Your task to perform on an android device: Open my contact list Image 0: 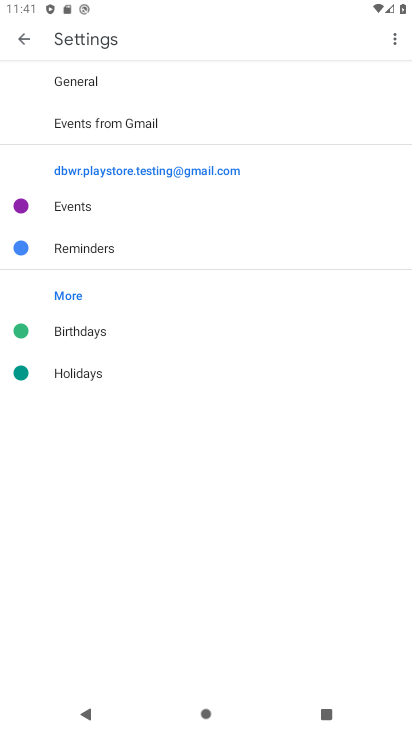
Step 0: press home button
Your task to perform on an android device: Open my contact list Image 1: 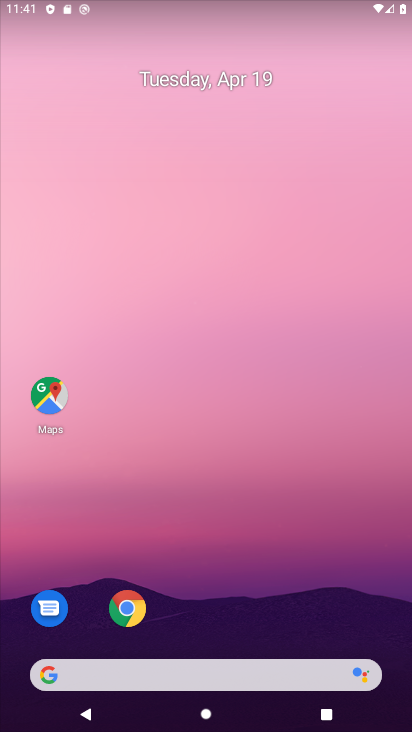
Step 1: drag from (187, 599) to (142, 57)
Your task to perform on an android device: Open my contact list Image 2: 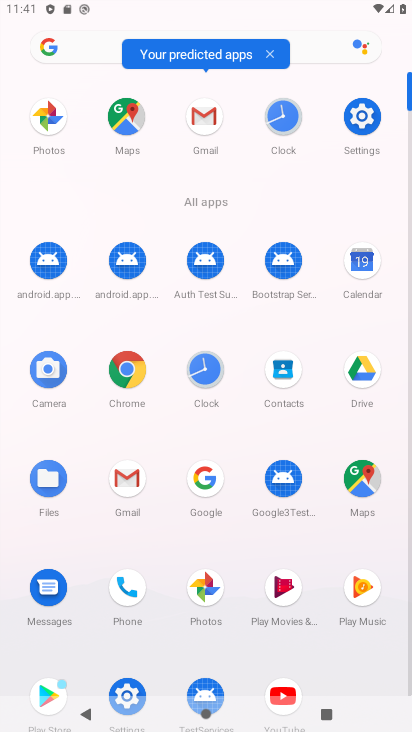
Step 2: click (133, 589)
Your task to perform on an android device: Open my contact list Image 3: 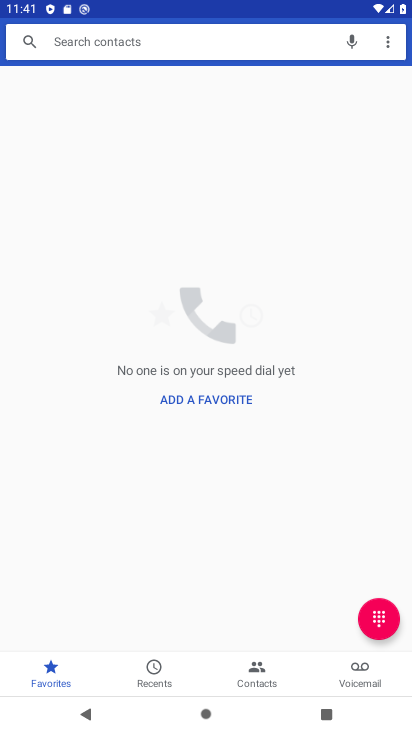
Step 3: click (256, 673)
Your task to perform on an android device: Open my contact list Image 4: 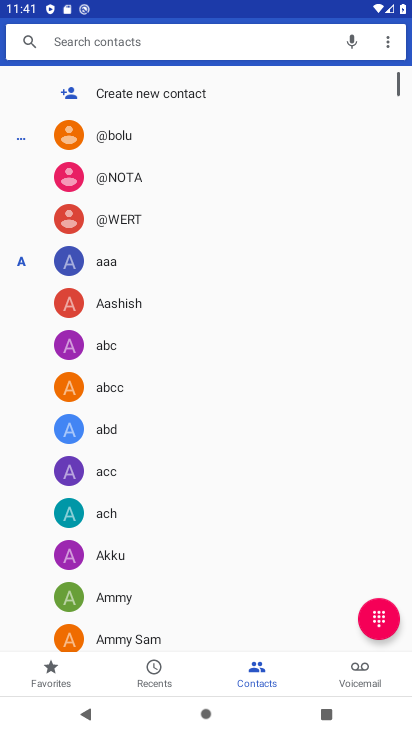
Step 4: task complete